Your task to perform on an android device: Open Google Image 0: 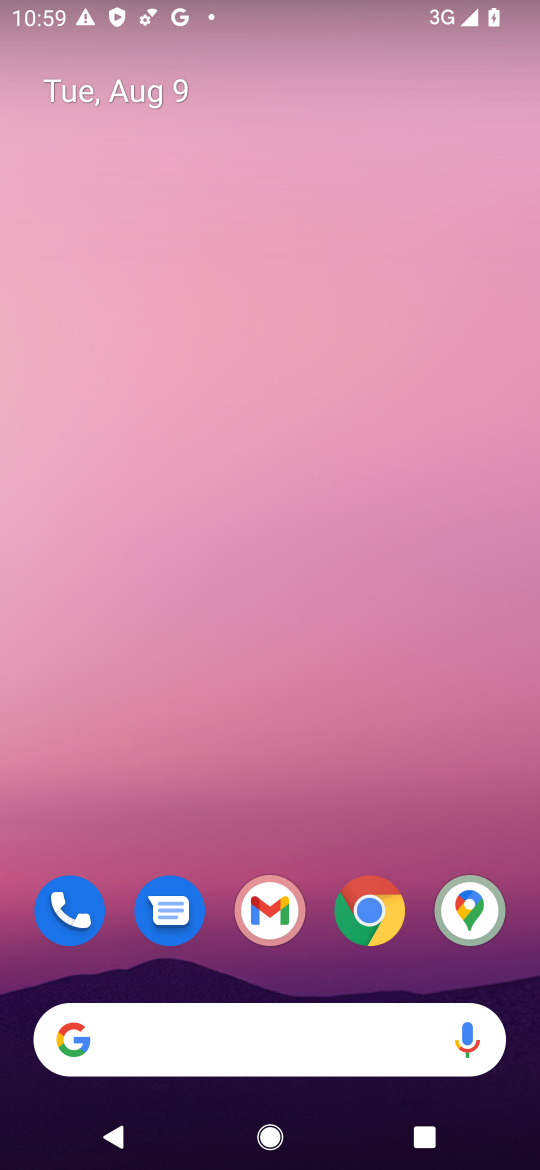
Step 0: drag from (60, 991) to (422, 132)
Your task to perform on an android device: Open Google Image 1: 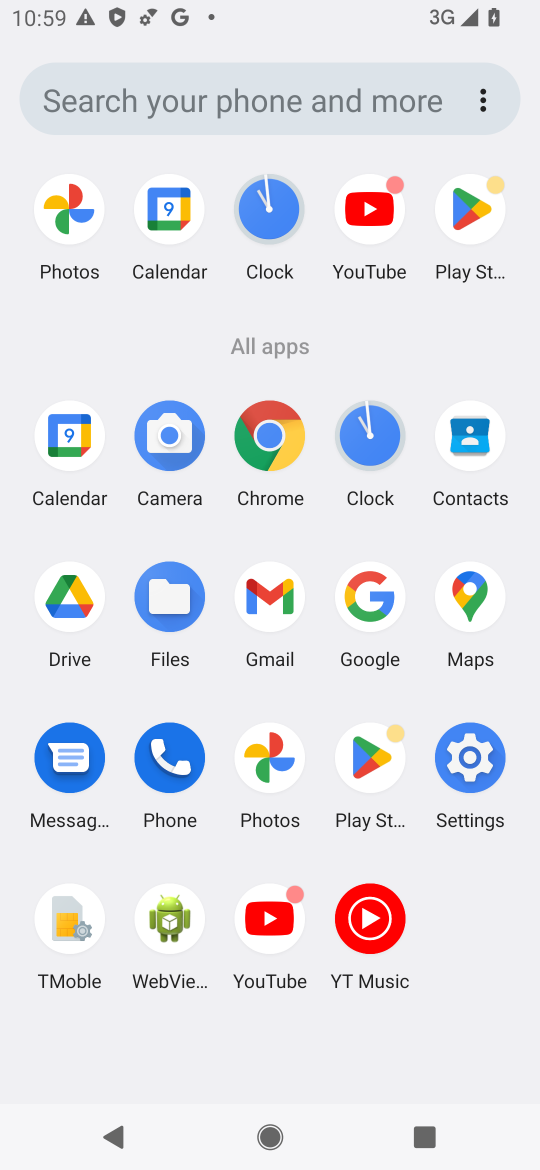
Step 1: click (386, 583)
Your task to perform on an android device: Open Google Image 2: 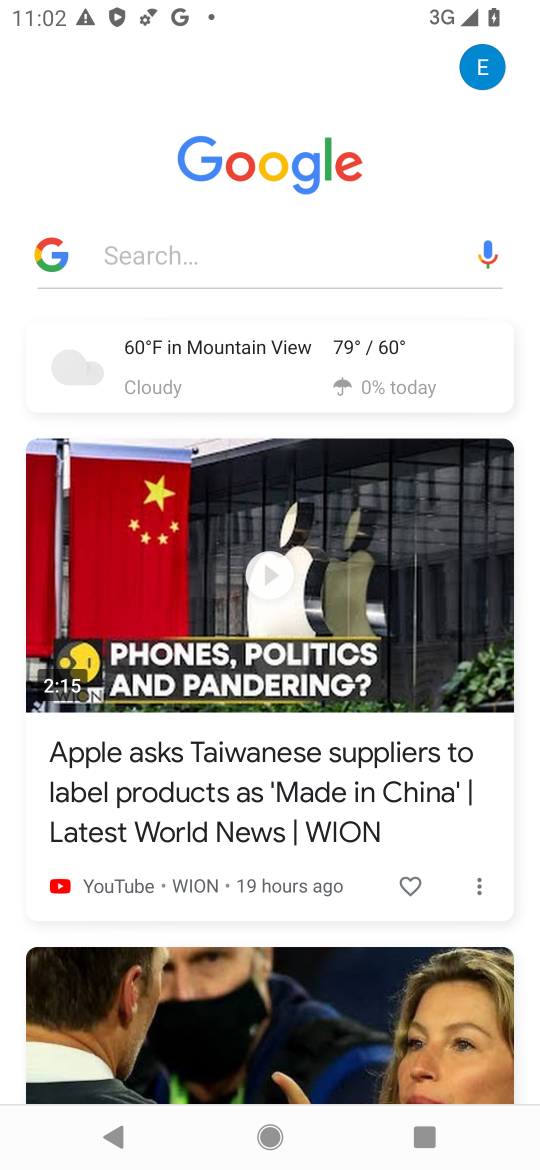
Step 2: task complete